Your task to perform on an android device: turn on the 12-hour format for clock Image 0: 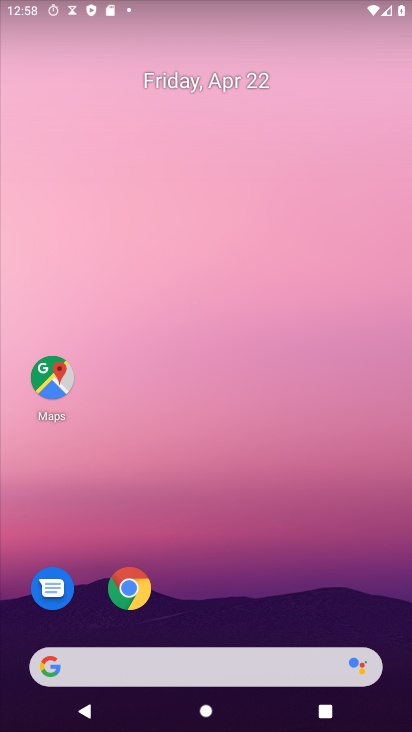
Step 0: drag from (195, 668) to (351, 9)
Your task to perform on an android device: turn on the 12-hour format for clock Image 1: 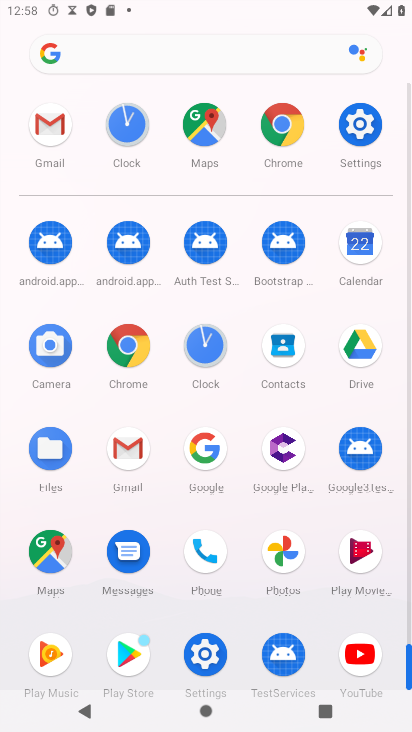
Step 1: click (207, 341)
Your task to perform on an android device: turn on the 12-hour format for clock Image 2: 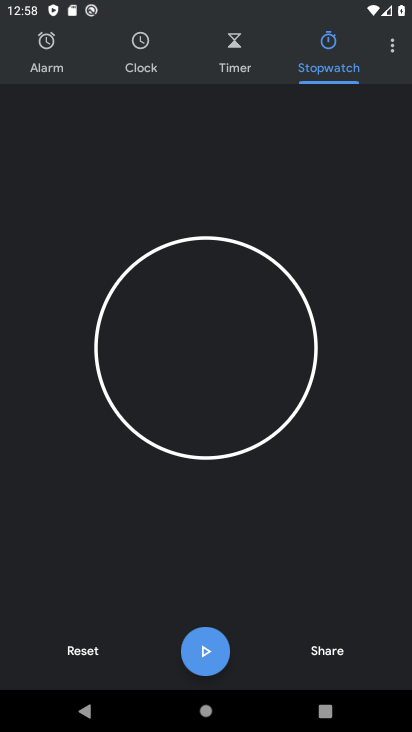
Step 2: click (387, 58)
Your task to perform on an android device: turn on the 12-hour format for clock Image 3: 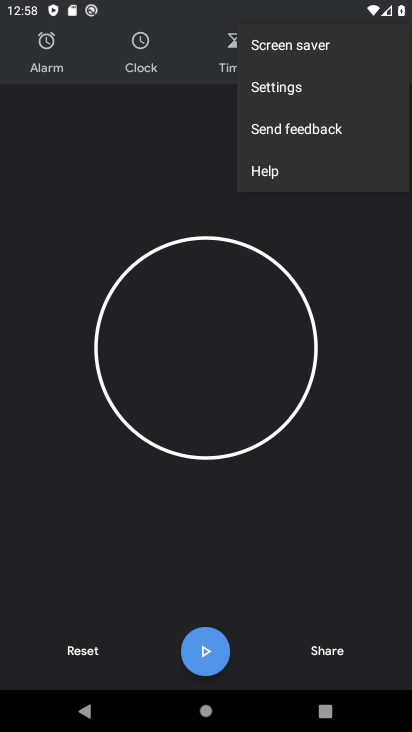
Step 3: click (308, 85)
Your task to perform on an android device: turn on the 12-hour format for clock Image 4: 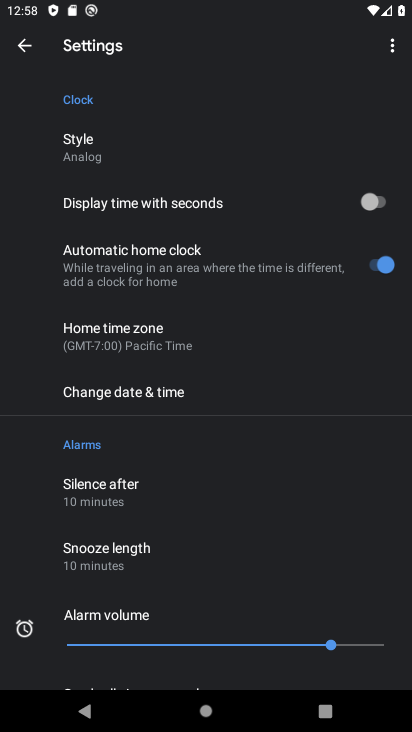
Step 4: drag from (170, 504) to (217, 296)
Your task to perform on an android device: turn on the 12-hour format for clock Image 5: 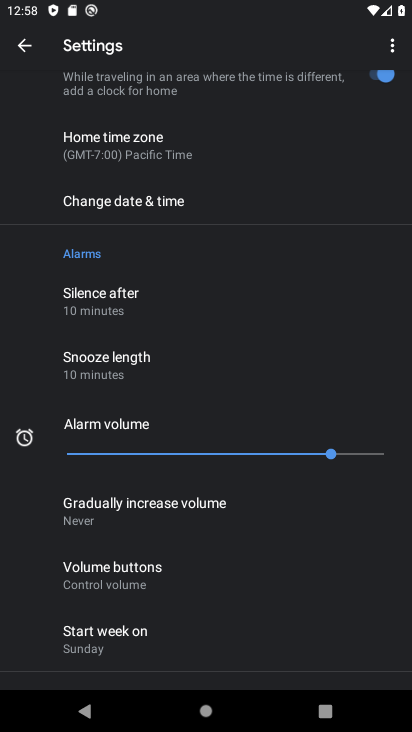
Step 5: click (200, 206)
Your task to perform on an android device: turn on the 12-hour format for clock Image 6: 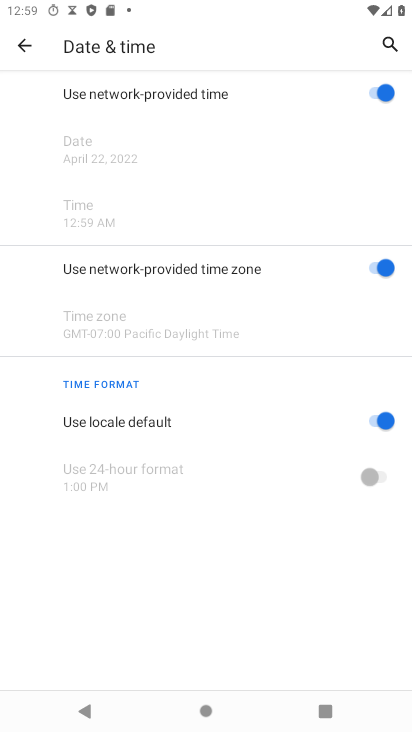
Step 6: click (383, 427)
Your task to perform on an android device: turn on the 12-hour format for clock Image 7: 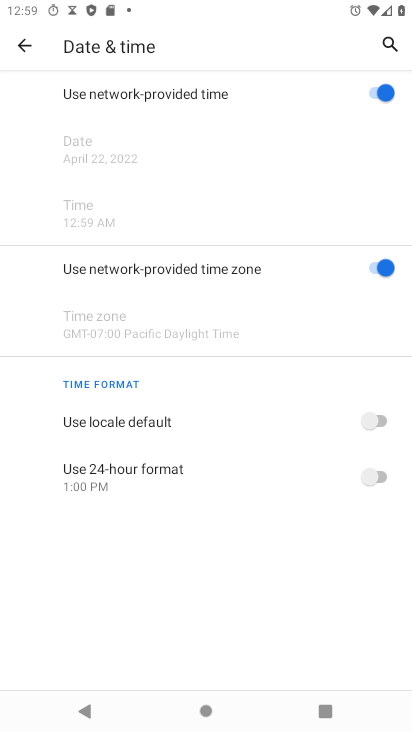
Step 7: click (376, 467)
Your task to perform on an android device: turn on the 12-hour format for clock Image 8: 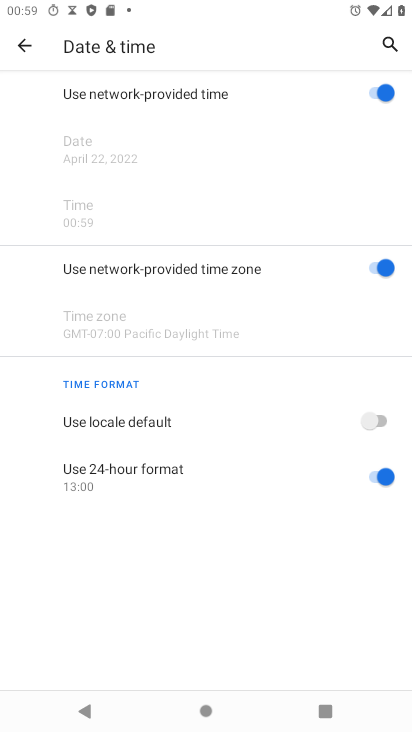
Step 8: click (376, 467)
Your task to perform on an android device: turn on the 12-hour format for clock Image 9: 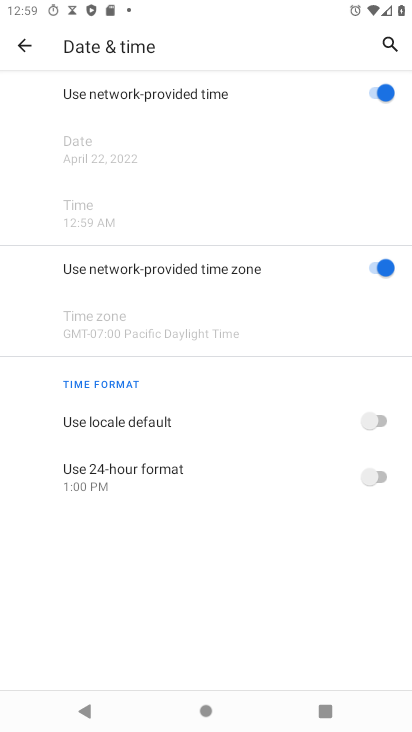
Step 9: task complete